Your task to perform on an android device: see sites visited before in the chrome app Image 0: 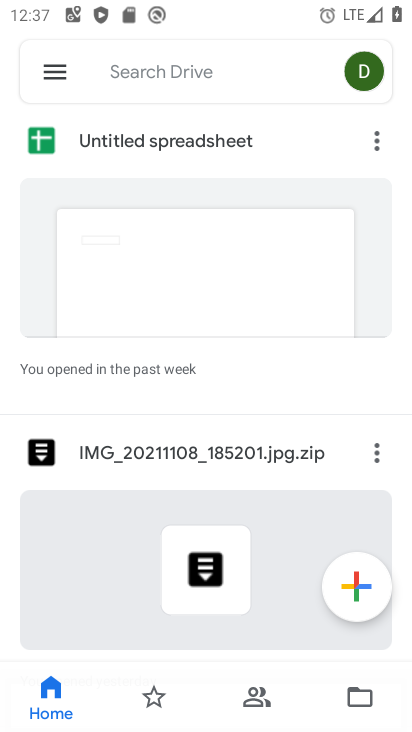
Step 0: press home button
Your task to perform on an android device: see sites visited before in the chrome app Image 1: 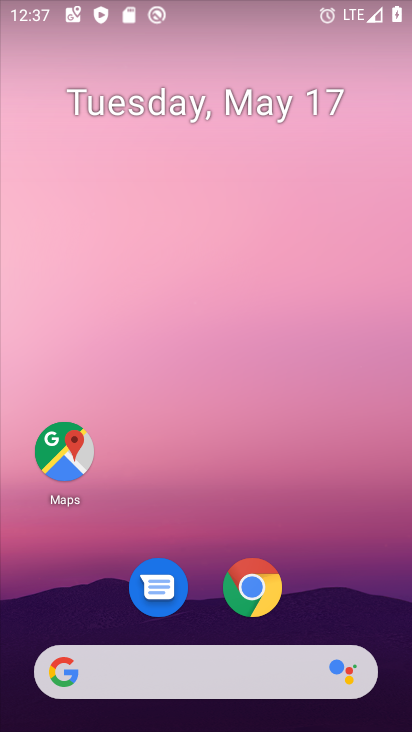
Step 1: drag from (380, 673) to (263, 69)
Your task to perform on an android device: see sites visited before in the chrome app Image 2: 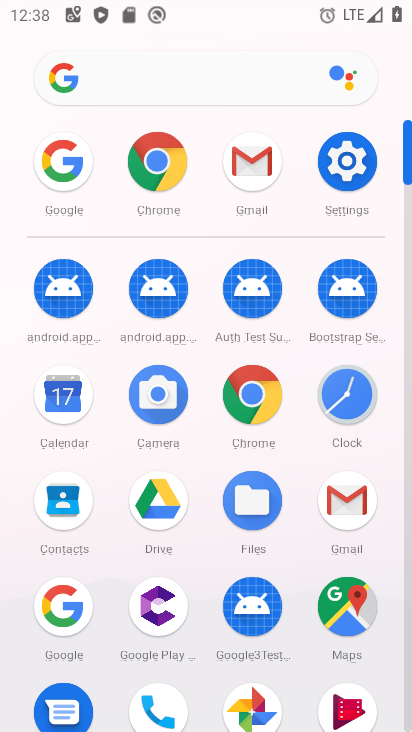
Step 2: click (254, 390)
Your task to perform on an android device: see sites visited before in the chrome app Image 3: 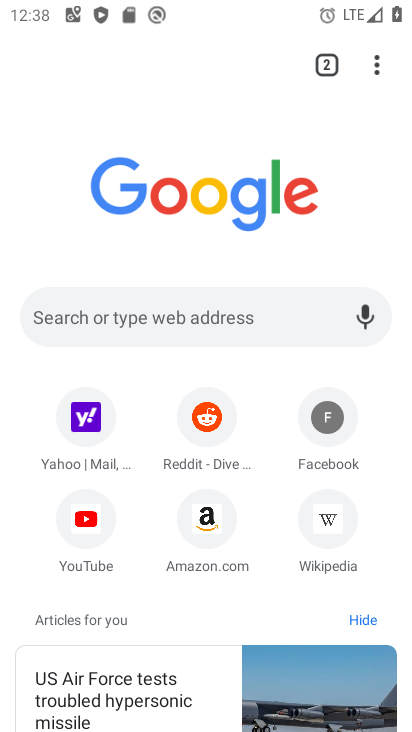
Step 3: click (383, 61)
Your task to perform on an android device: see sites visited before in the chrome app Image 4: 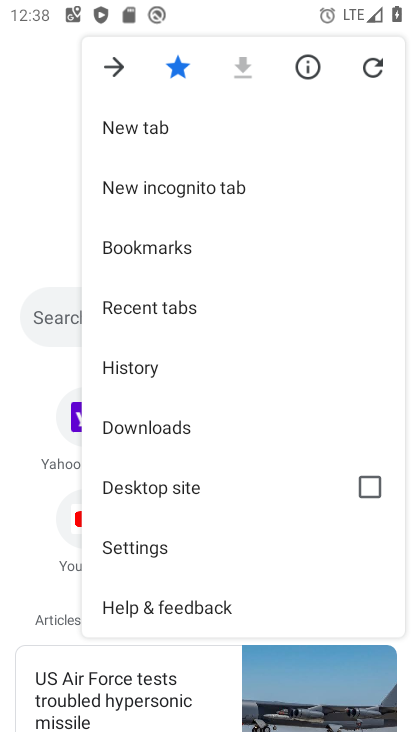
Step 4: click (161, 375)
Your task to perform on an android device: see sites visited before in the chrome app Image 5: 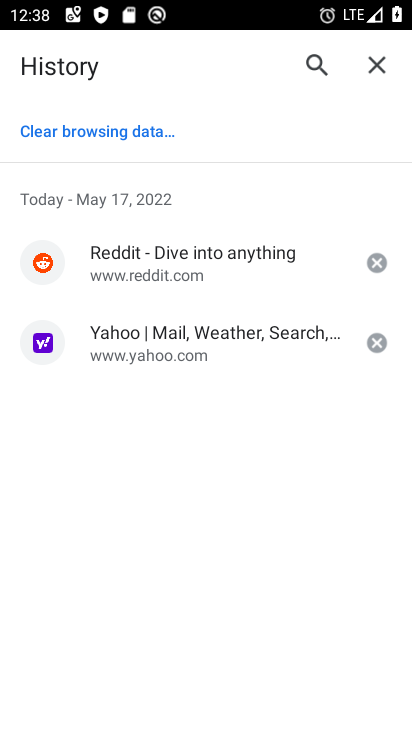
Step 5: click (137, 260)
Your task to perform on an android device: see sites visited before in the chrome app Image 6: 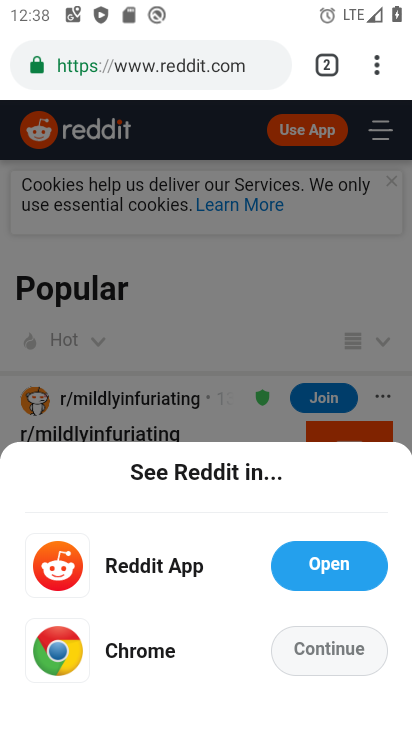
Step 6: task complete